Your task to perform on an android device: open app "Speedtest by Ookla" (install if not already installed) and enter user name: "hyena@outlook.com" and password: "terminators" Image 0: 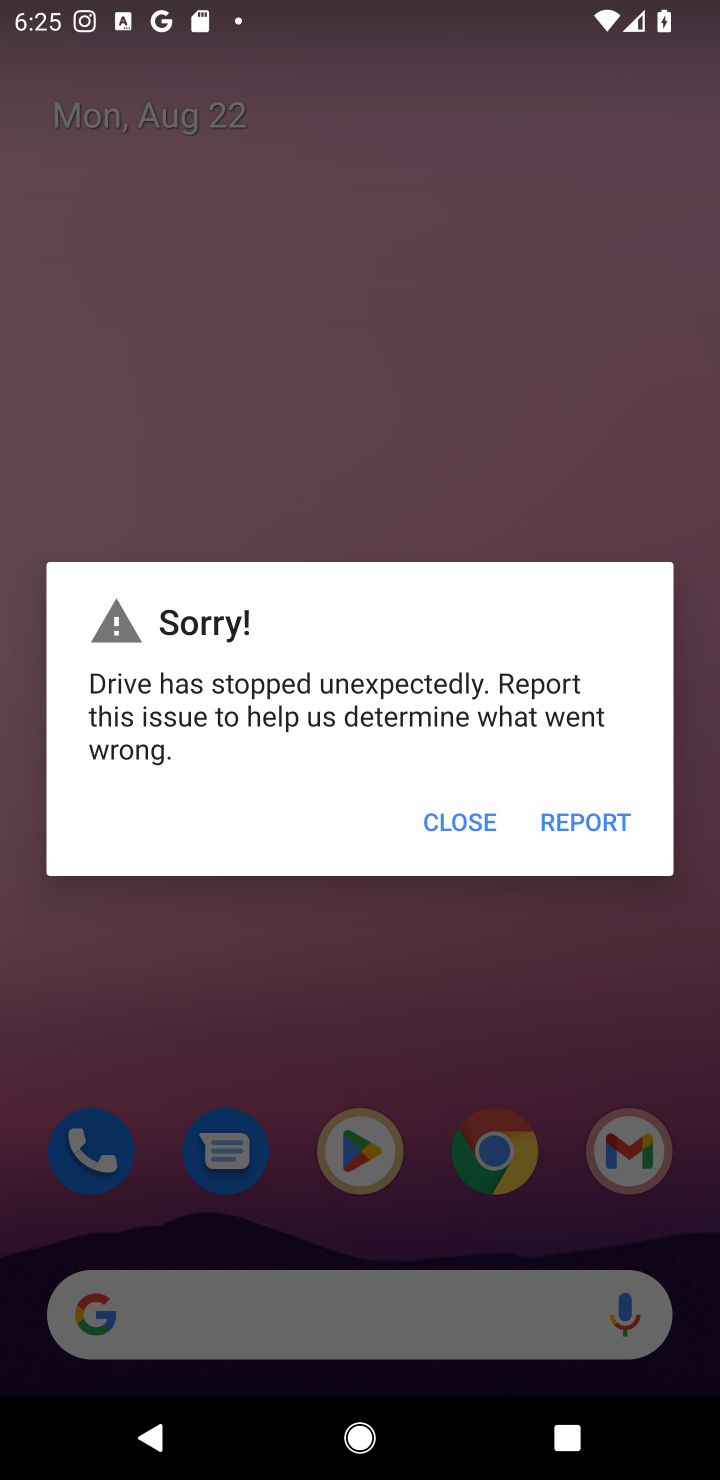
Step 0: press home button
Your task to perform on an android device: open app "Speedtest by Ookla" (install if not already installed) and enter user name: "hyena@outlook.com" and password: "terminators" Image 1: 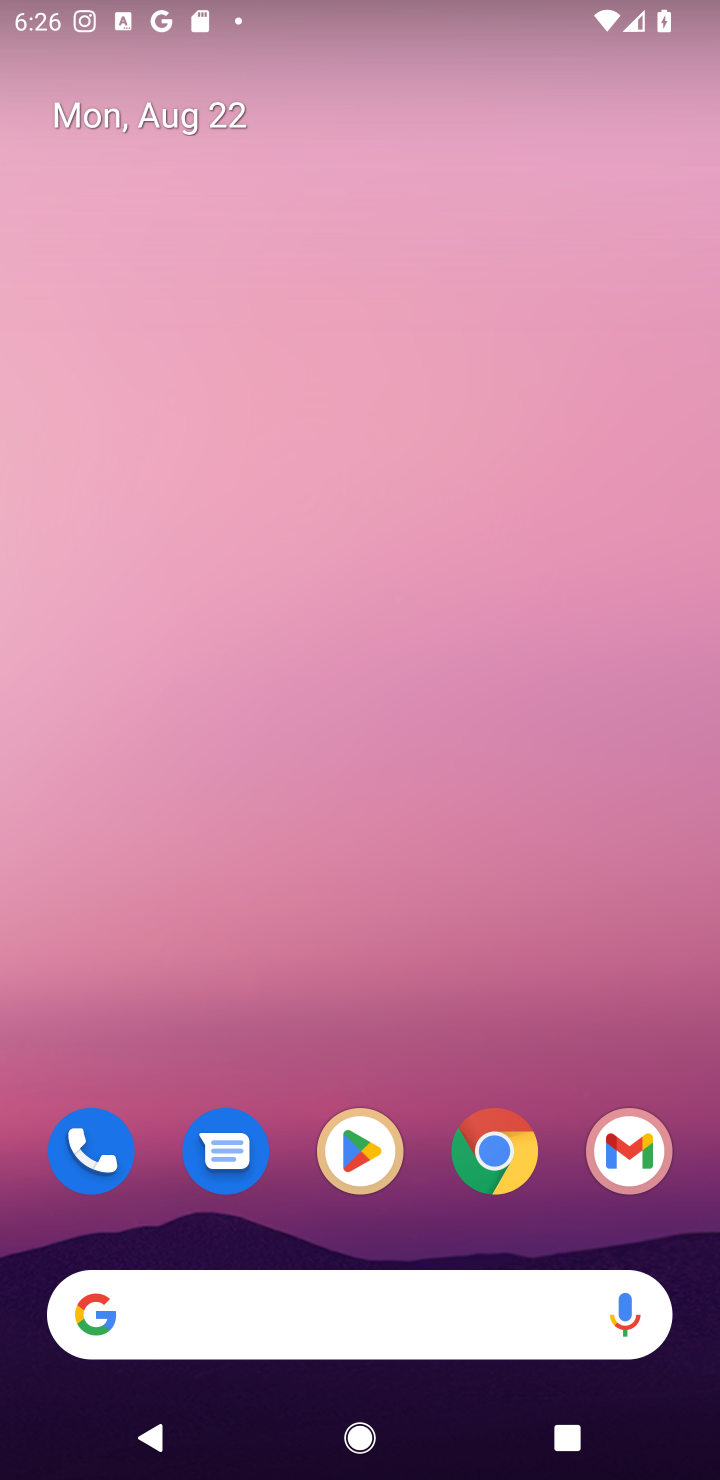
Step 1: click (358, 1150)
Your task to perform on an android device: open app "Speedtest by Ookla" (install if not already installed) and enter user name: "hyena@outlook.com" and password: "terminators" Image 2: 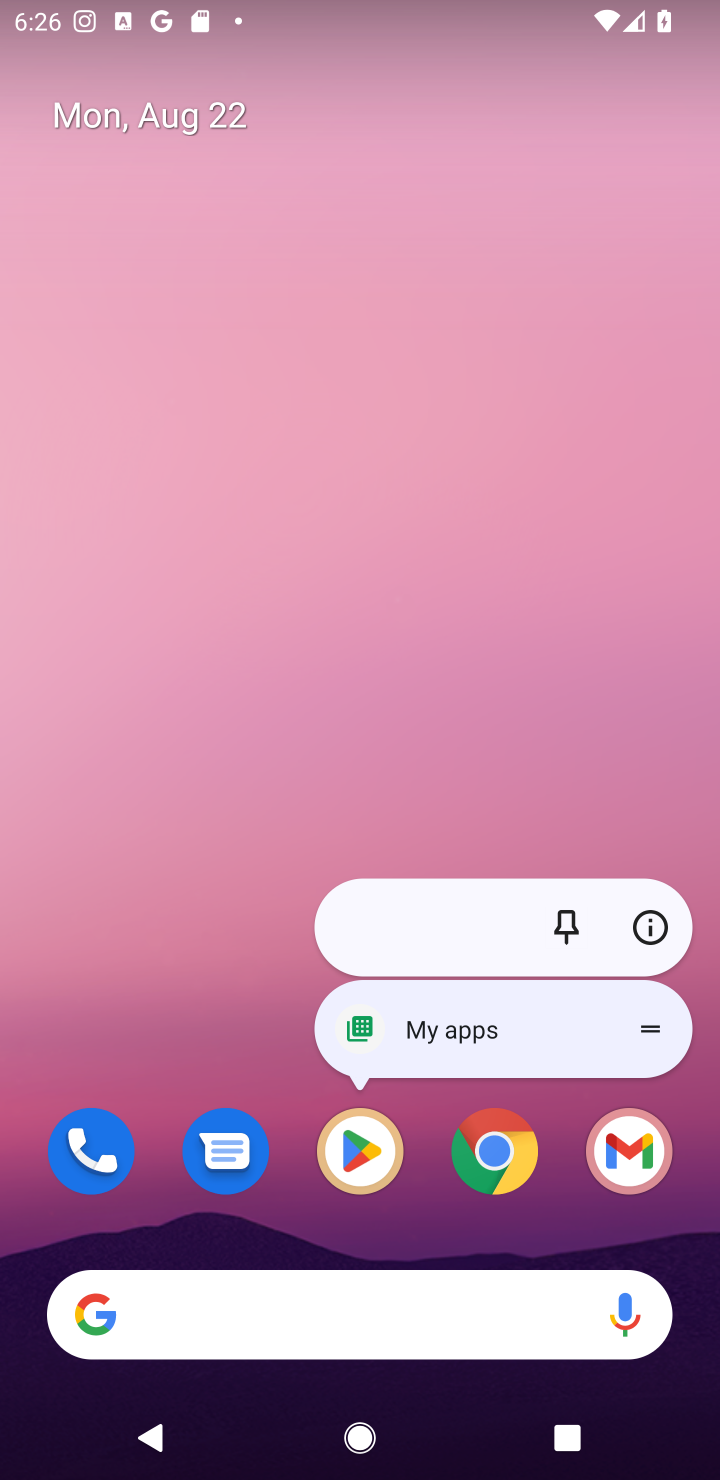
Step 2: click (358, 1157)
Your task to perform on an android device: open app "Speedtest by Ookla" (install if not already installed) and enter user name: "hyena@outlook.com" and password: "terminators" Image 3: 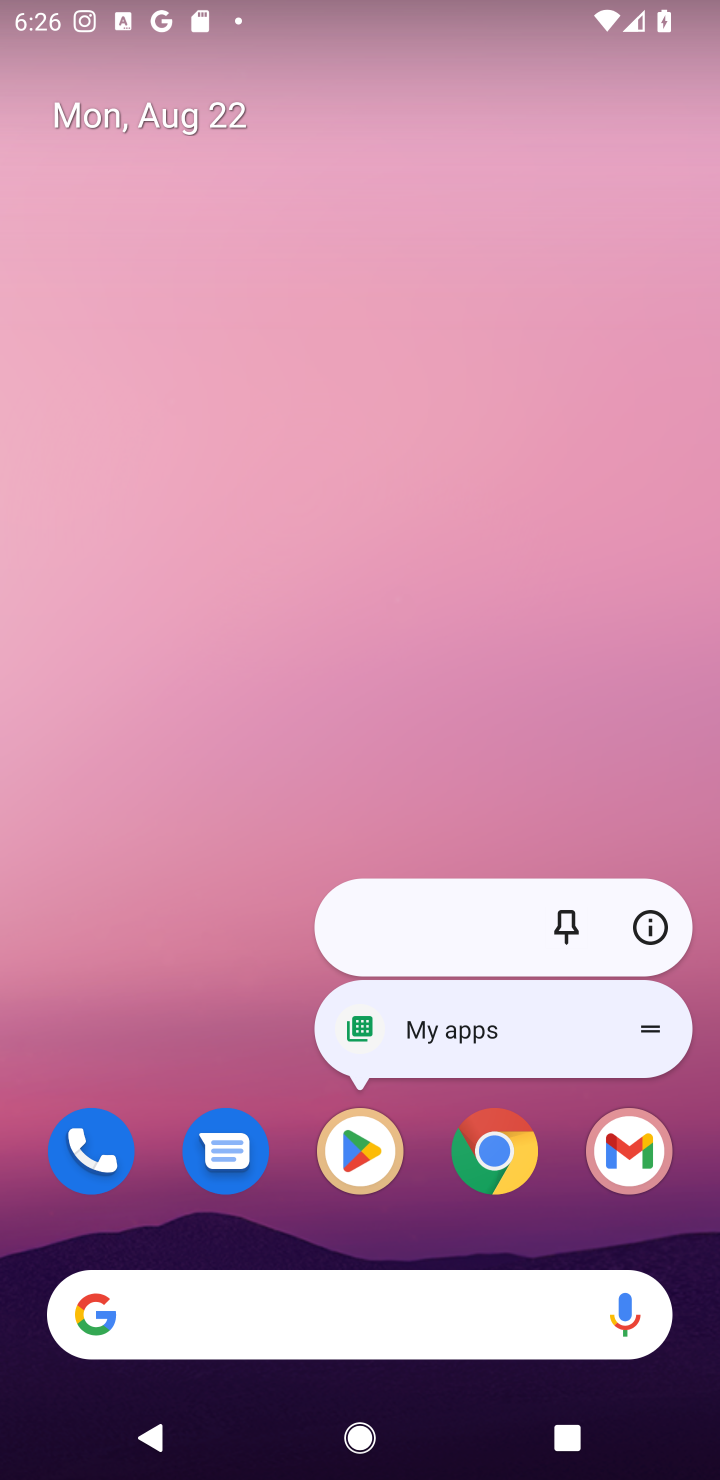
Step 3: click (358, 1157)
Your task to perform on an android device: open app "Speedtest by Ookla" (install if not already installed) and enter user name: "hyena@outlook.com" and password: "terminators" Image 4: 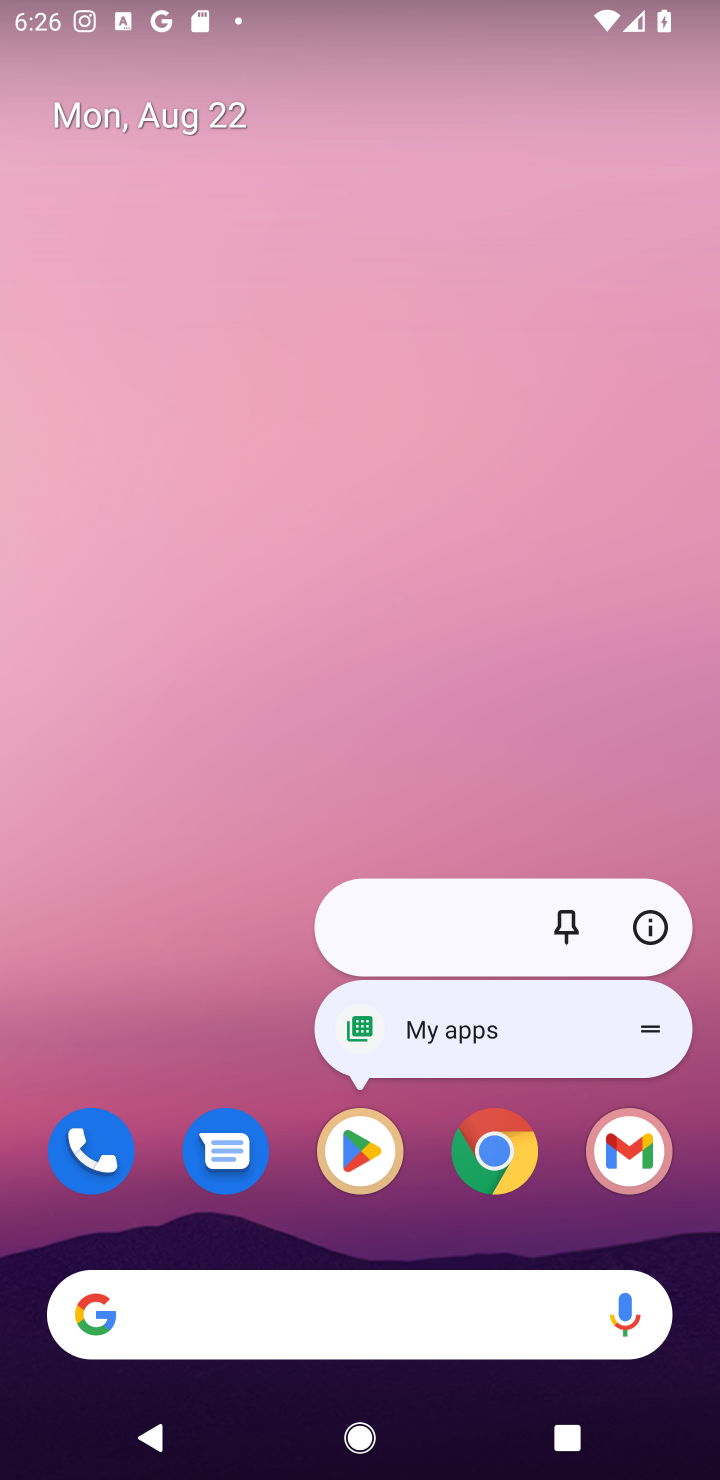
Step 4: click (358, 1157)
Your task to perform on an android device: open app "Speedtest by Ookla" (install if not already installed) and enter user name: "hyena@outlook.com" and password: "terminators" Image 5: 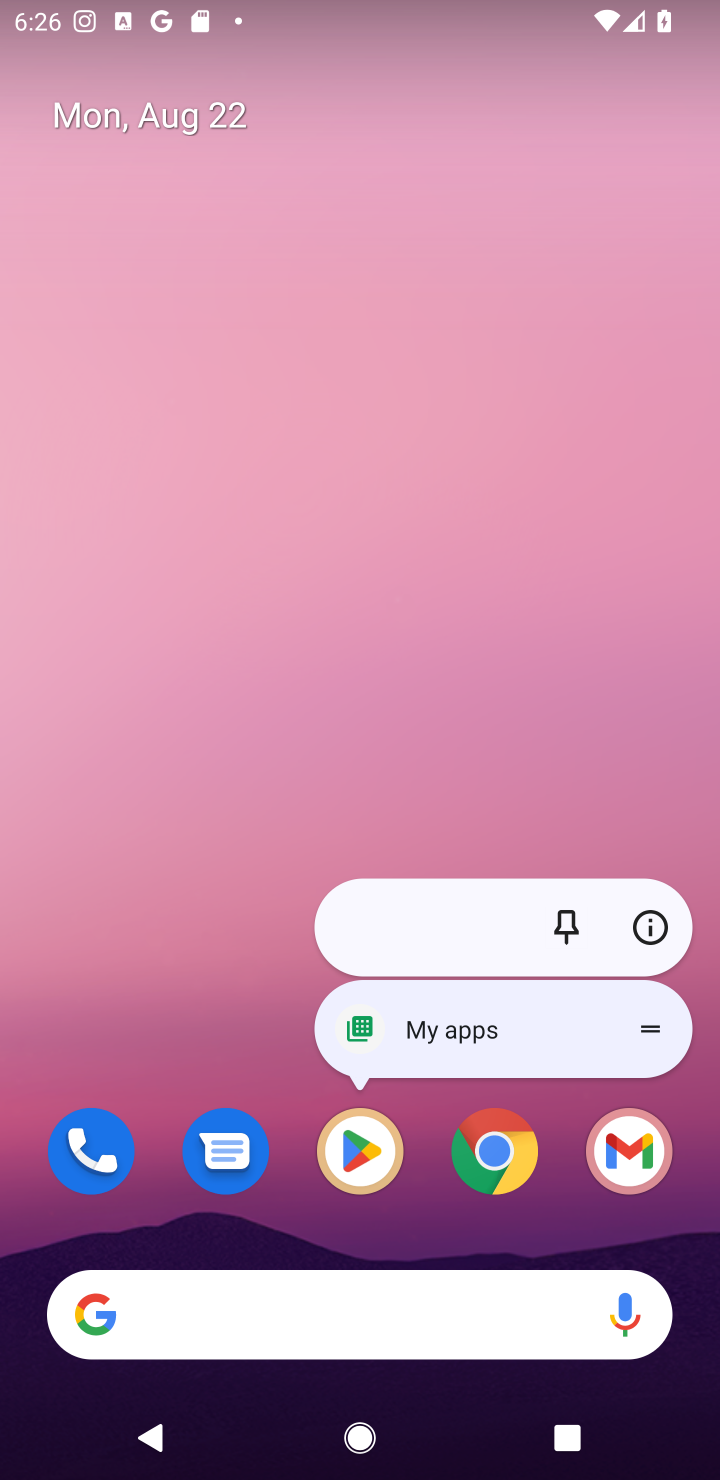
Step 5: click (358, 1159)
Your task to perform on an android device: open app "Speedtest by Ookla" (install if not already installed) and enter user name: "hyena@outlook.com" and password: "terminators" Image 6: 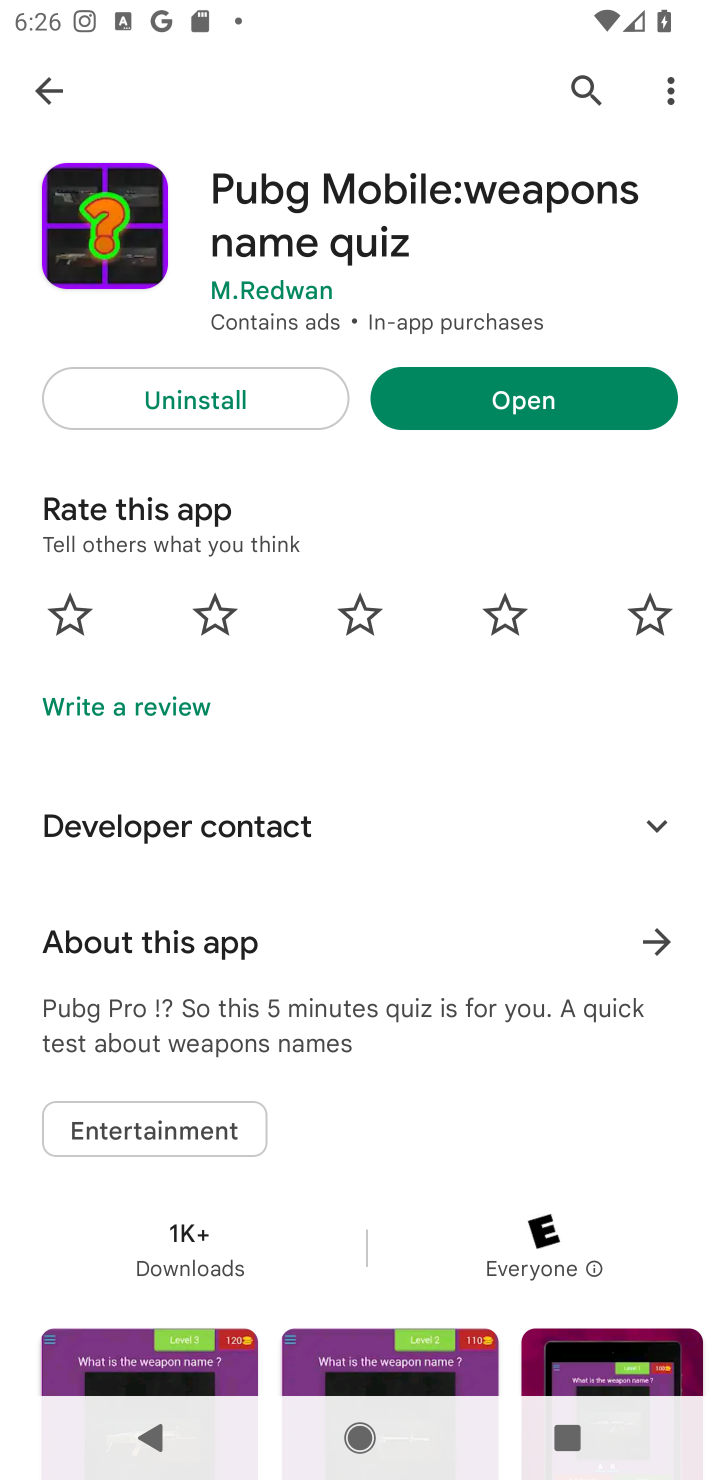
Step 6: click (582, 71)
Your task to perform on an android device: open app "Speedtest by Ookla" (install if not already installed) and enter user name: "hyena@outlook.com" and password: "terminators" Image 7: 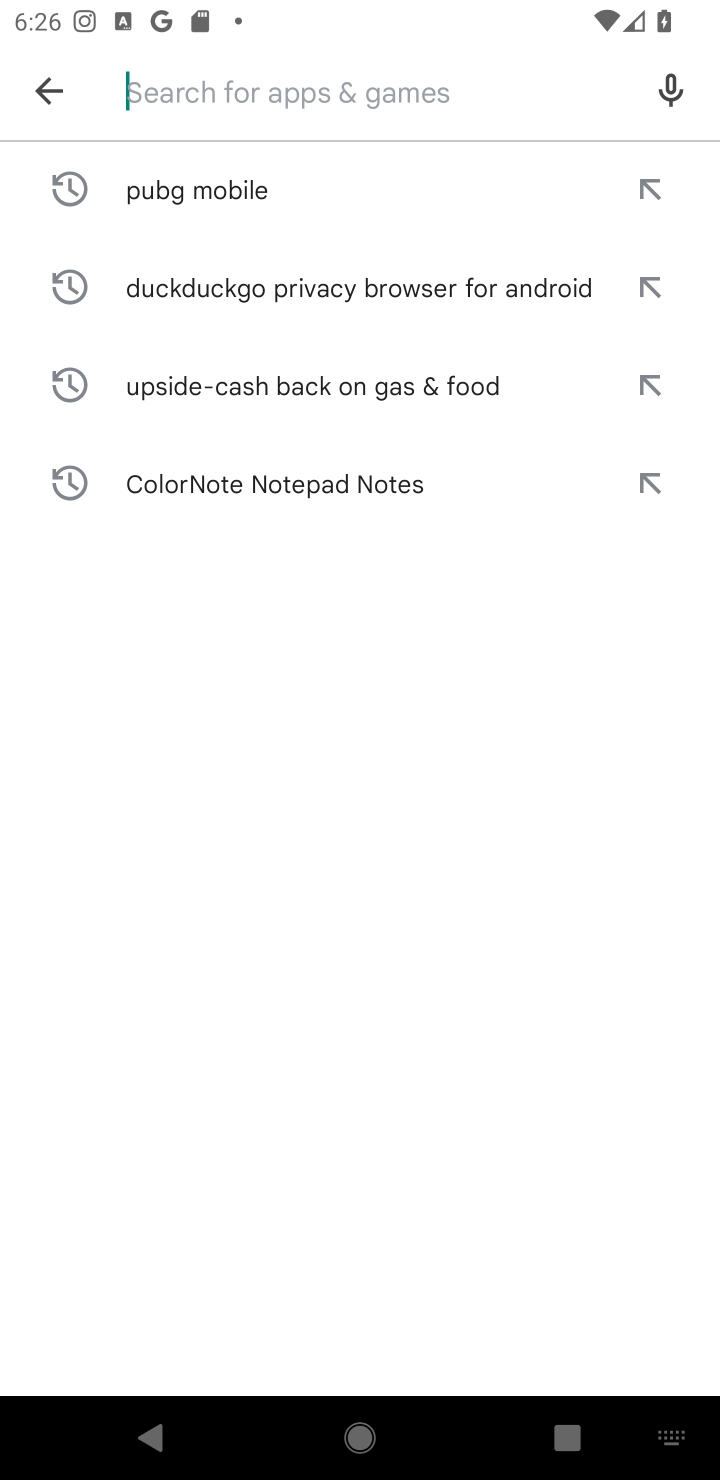
Step 7: type "Speedtest by Ookla"
Your task to perform on an android device: open app "Speedtest by Ookla" (install if not already installed) and enter user name: "hyena@outlook.com" and password: "terminators" Image 8: 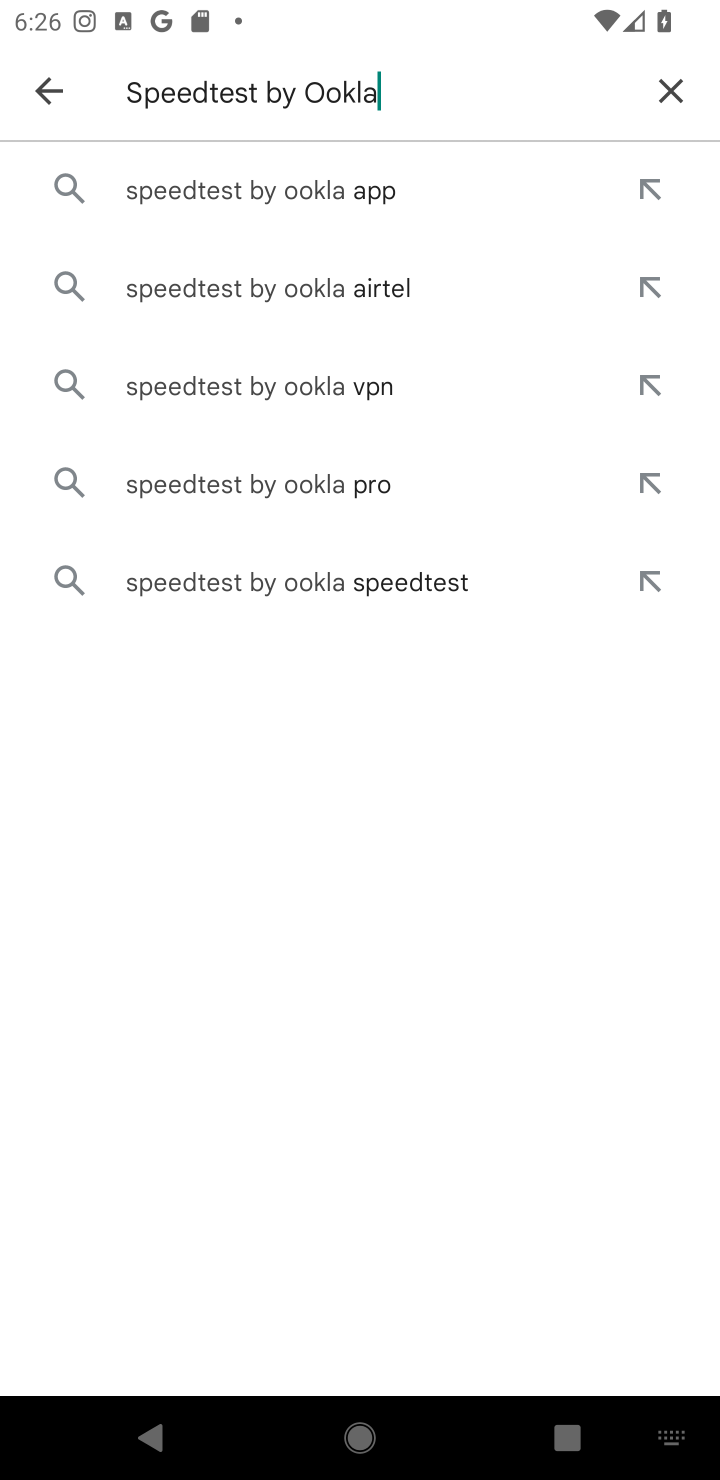
Step 8: click (366, 179)
Your task to perform on an android device: open app "Speedtest by Ookla" (install if not already installed) and enter user name: "hyena@outlook.com" and password: "terminators" Image 9: 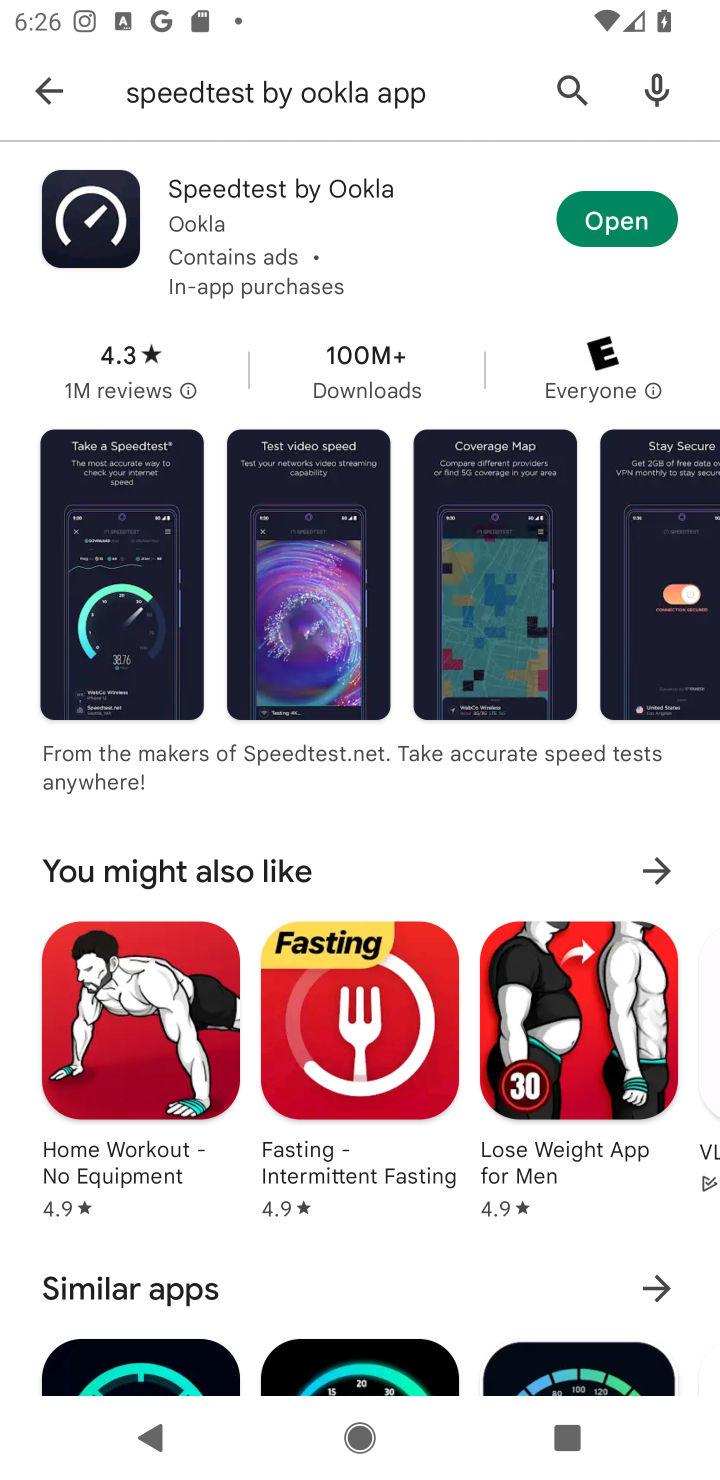
Step 9: click (610, 207)
Your task to perform on an android device: open app "Speedtest by Ookla" (install if not already installed) and enter user name: "hyena@outlook.com" and password: "terminators" Image 10: 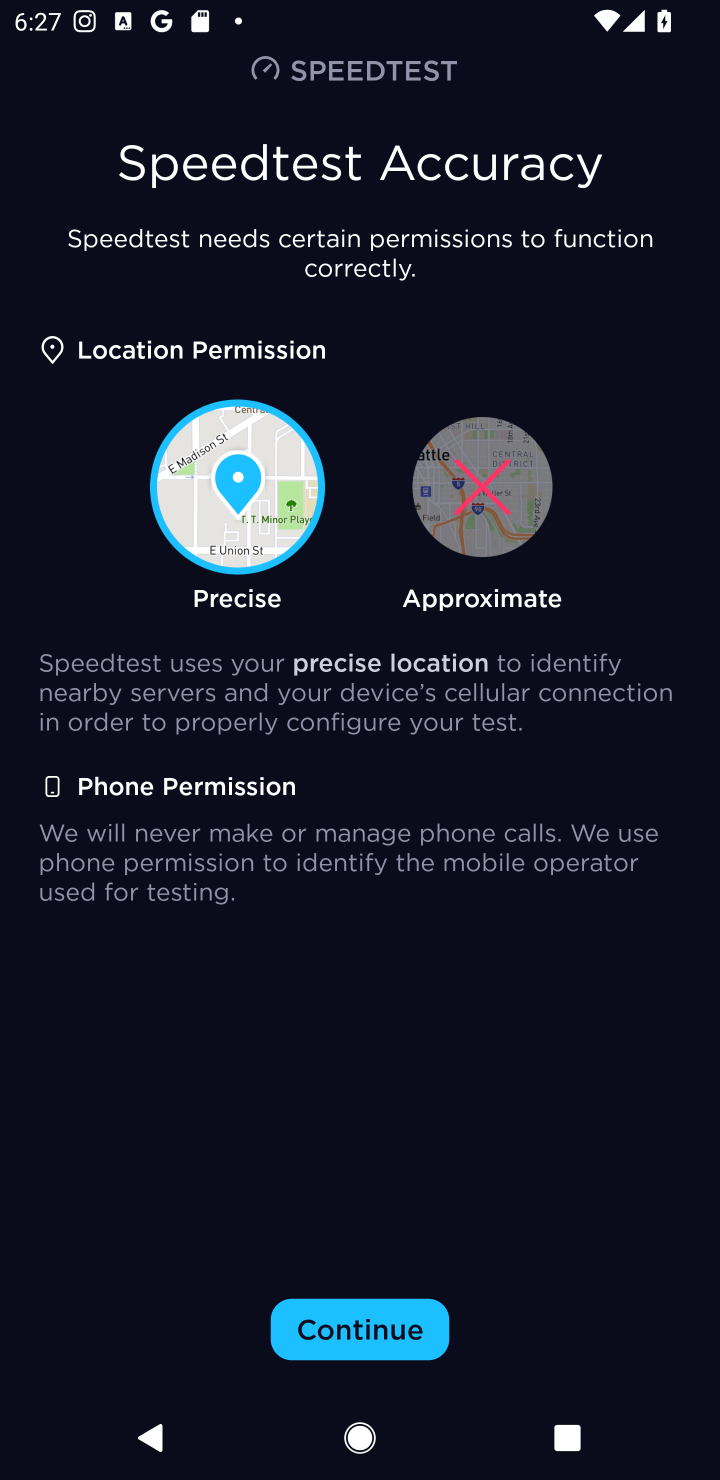
Step 10: task complete